Your task to perform on an android device: turn on airplane mode Image 0: 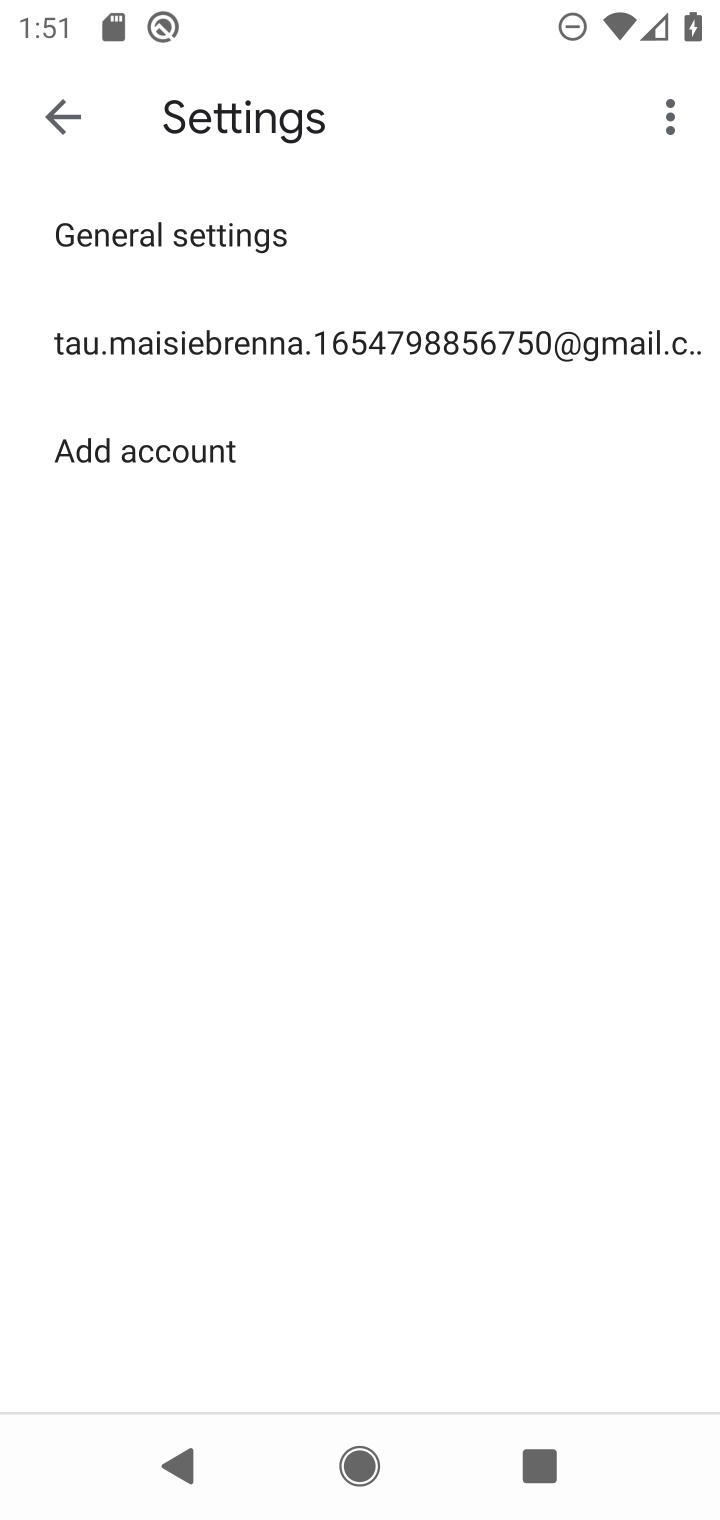
Step 0: press home button
Your task to perform on an android device: turn on airplane mode Image 1: 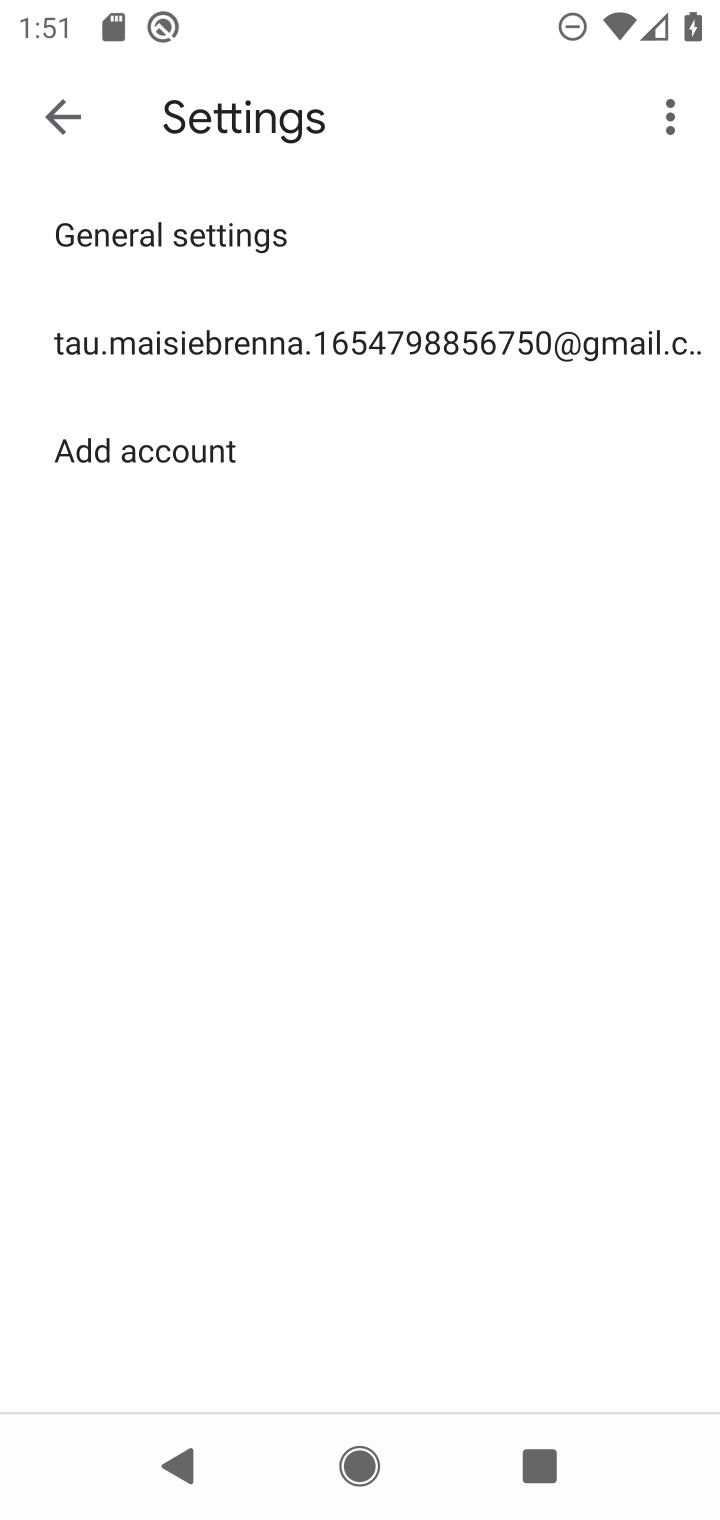
Step 1: press home button
Your task to perform on an android device: turn on airplane mode Image 2: 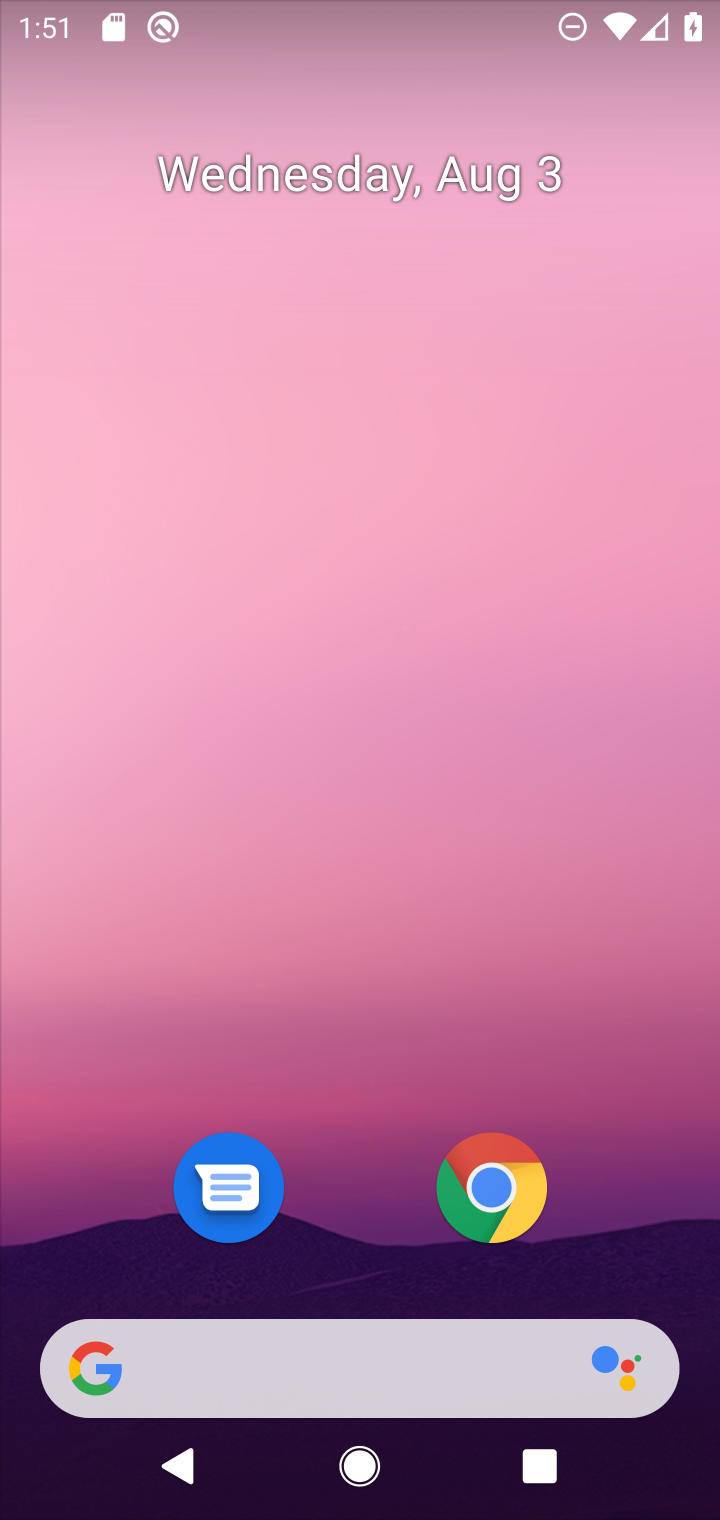
Step 2: drag from (615, 1215) to (540, 91)
Your task to perform on an android device: turn on airplane mode Image 3: 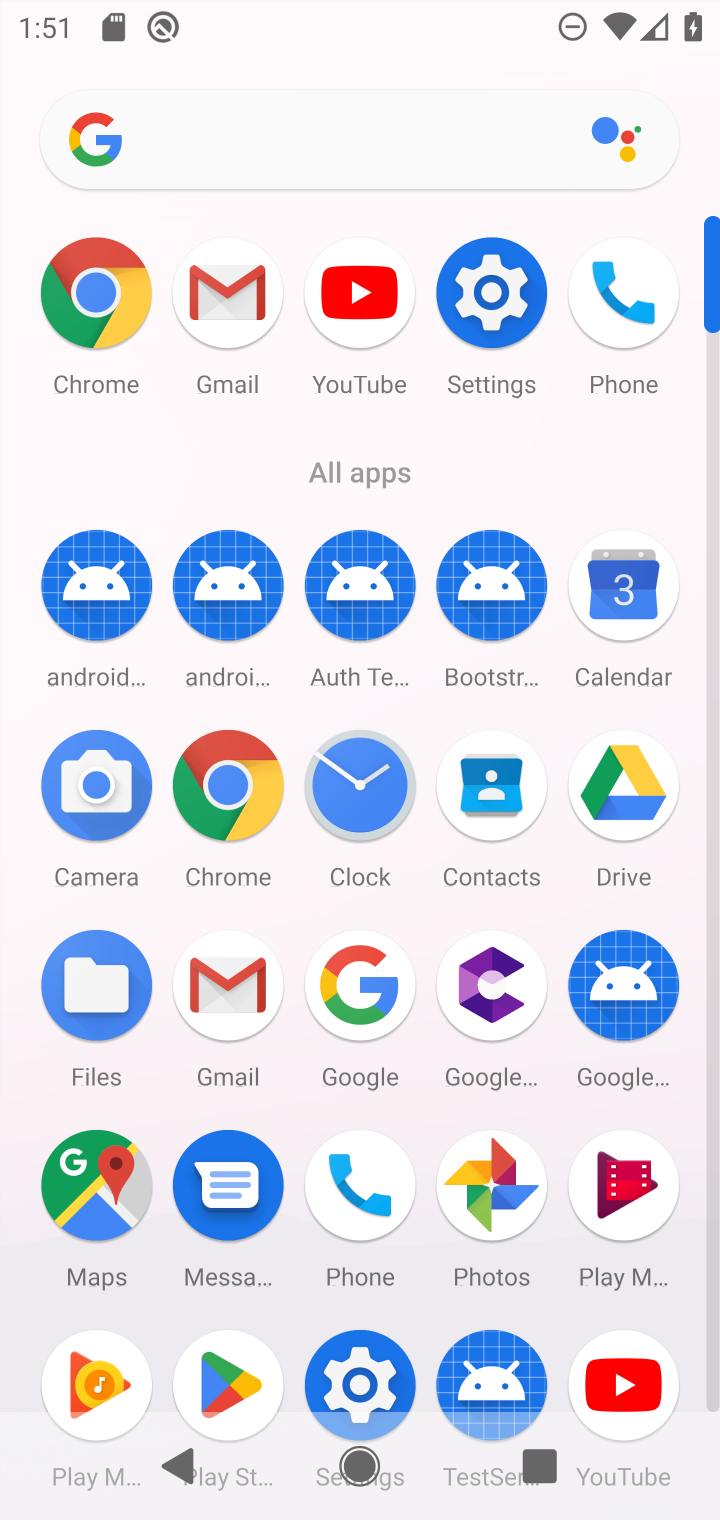
Step 3: click (506, 265)
Your task to perform on an android device: turn on airplane mode Image 4: 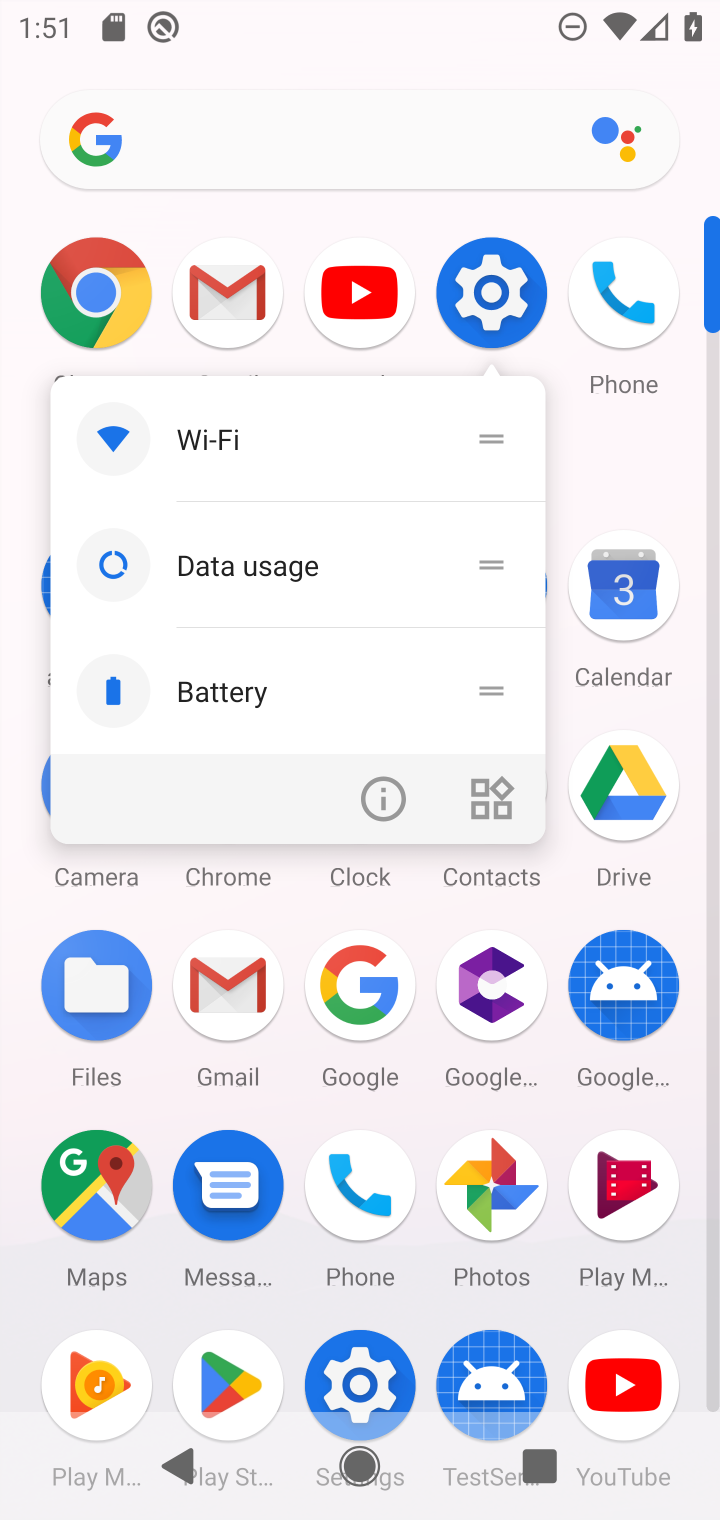
Step 4: click (506, 265)
Your task to perform on an android device: turn on airplane mode Image 5: 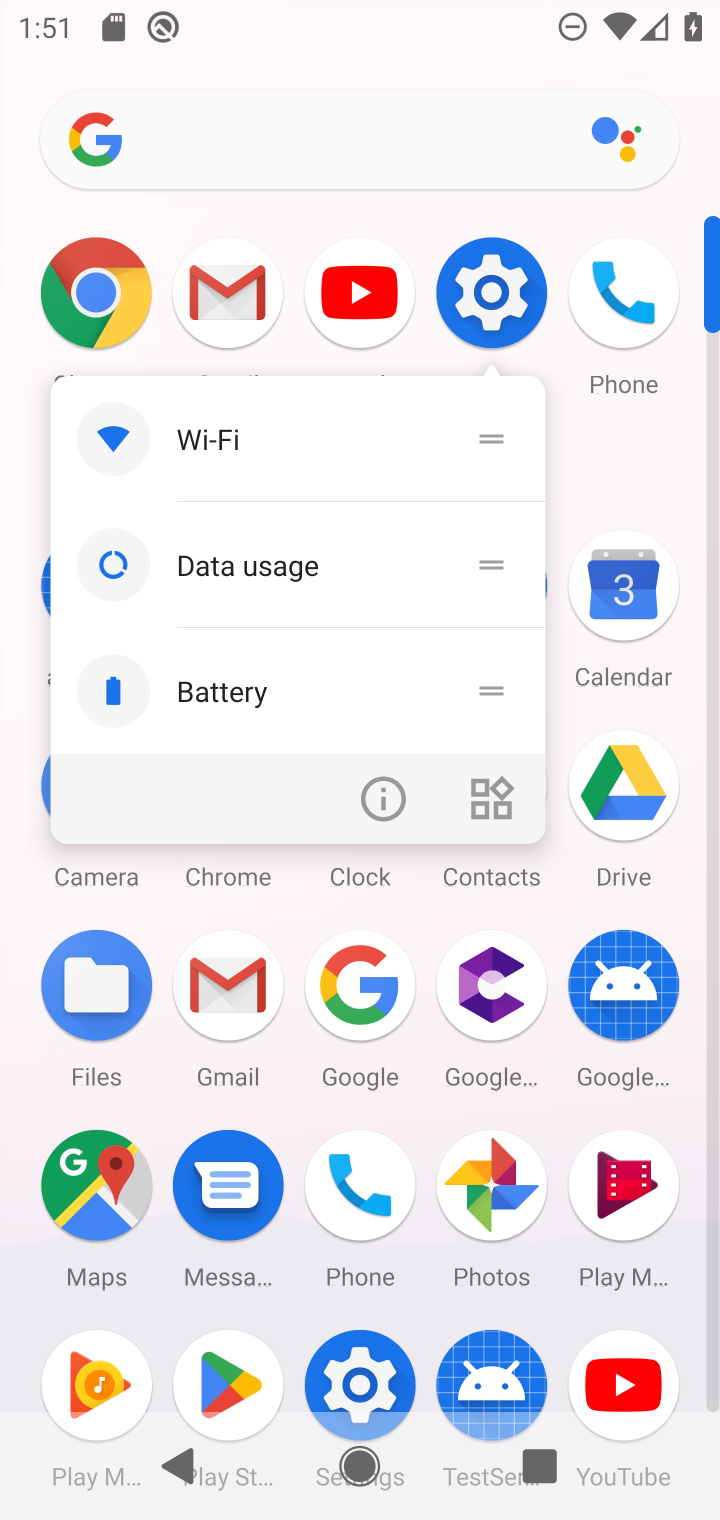
Step 5: click (506, 265)
Your task to perform on an android device: turn on airplane mode Image 6: 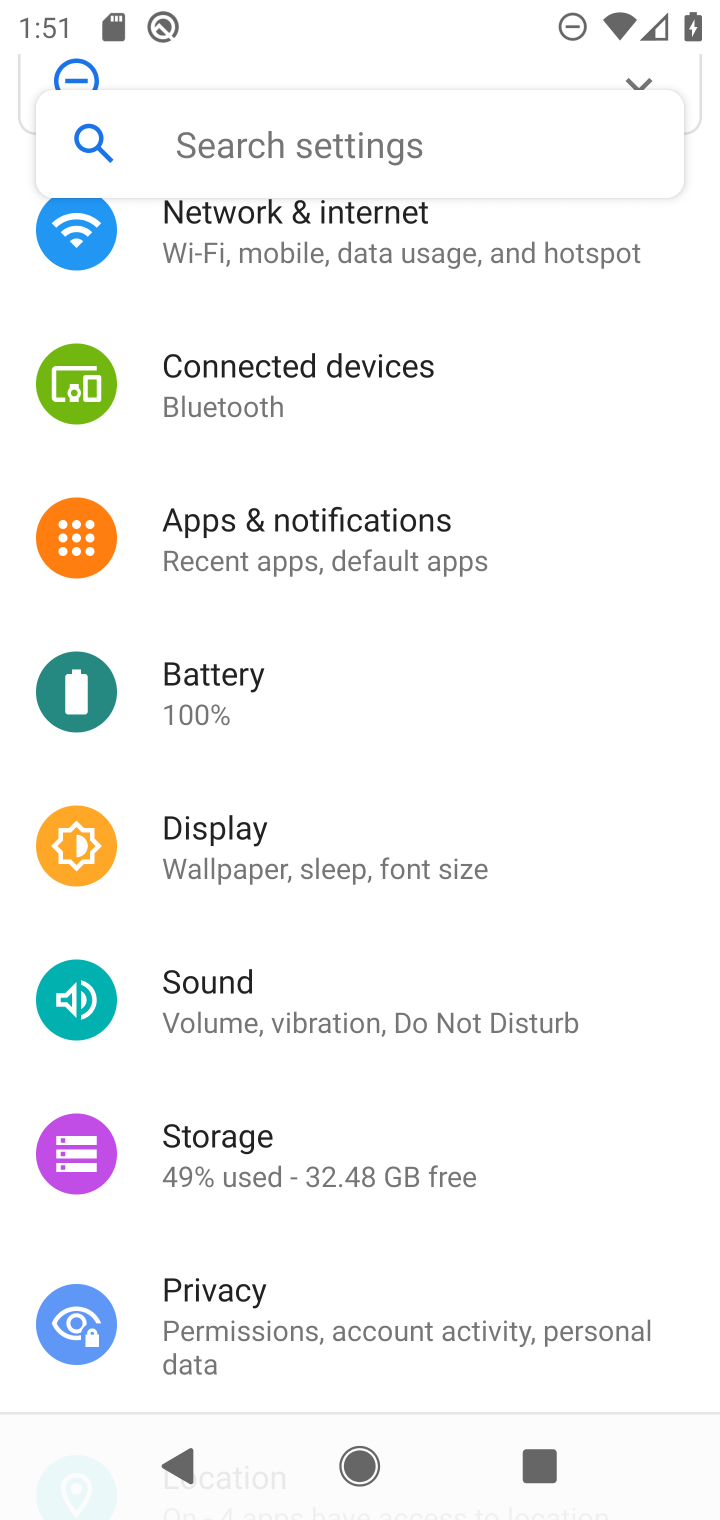
Step 6: click (506, 265)
Your task to perform on an android device: turn on airplane mode Image 7: 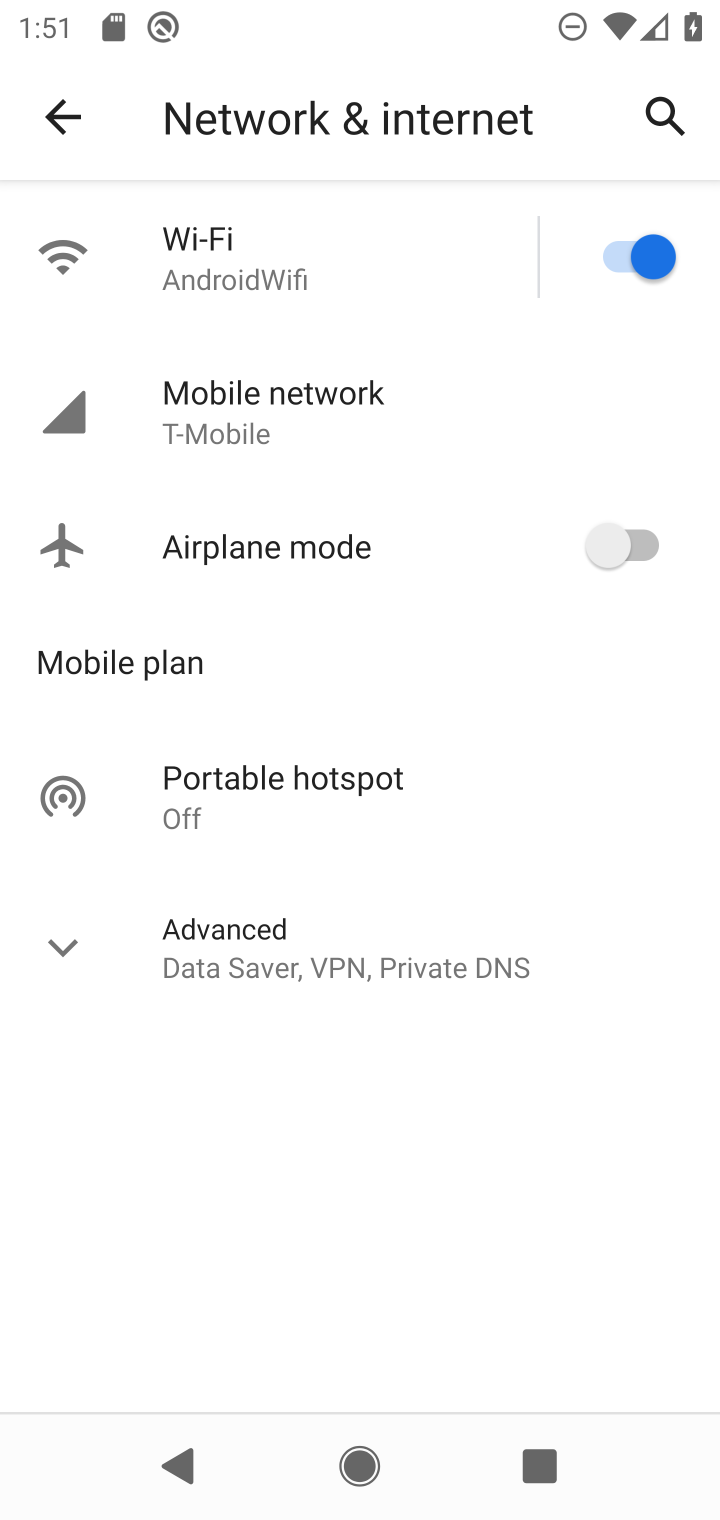
Step 7: click (634, 543)
Your task to perform on an android device: turn on airplane mode Image 8: 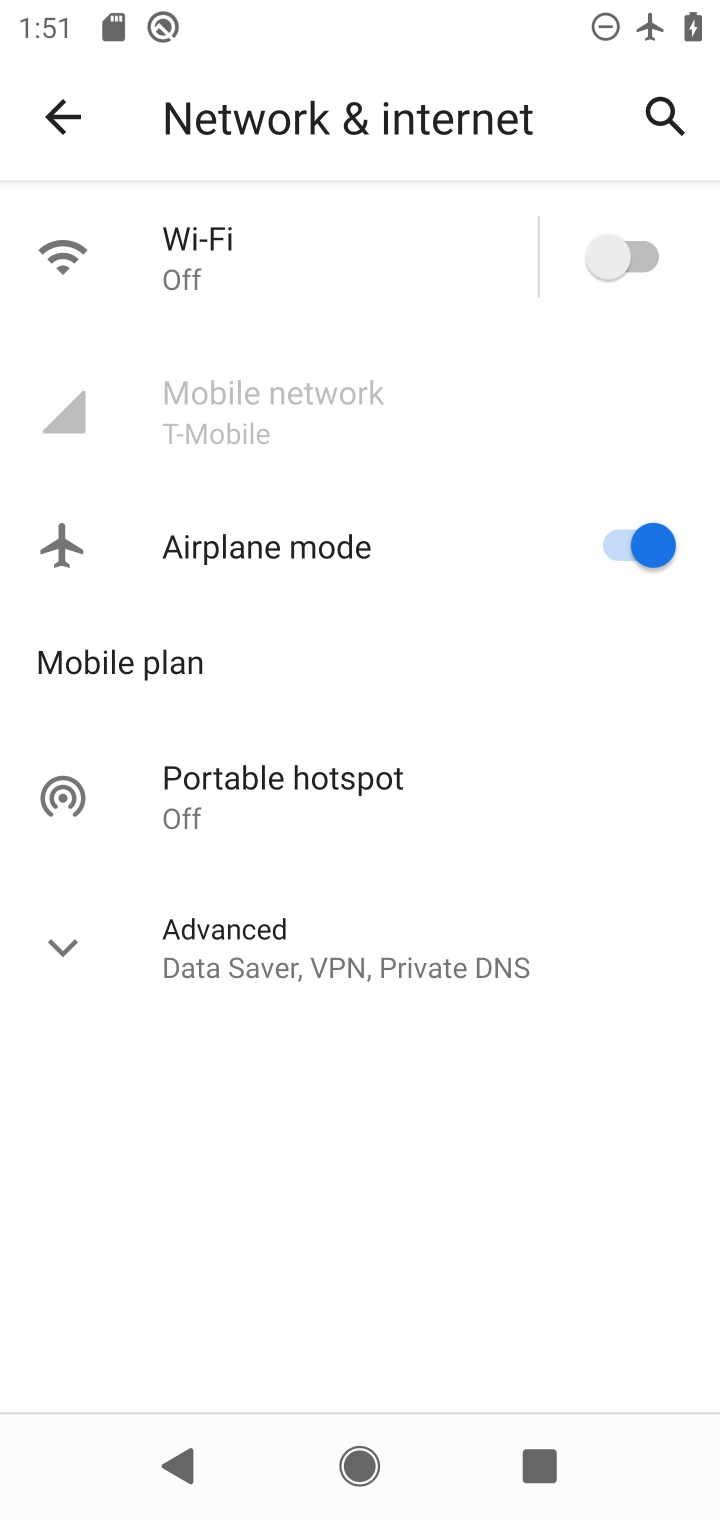
Step 8: task complete